Your task to perform on an android device: toggle improve location accuracy Image 0: 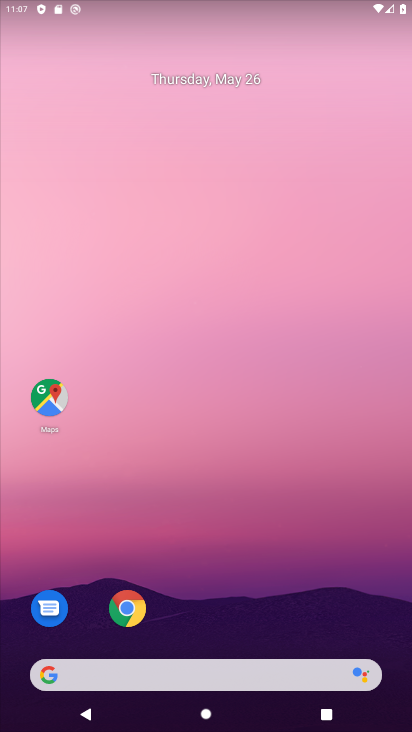
Step 0: drag from (277, 595) to (159, 74)
Your task to perform on an android device: toggle improve location accuracy Image 1: 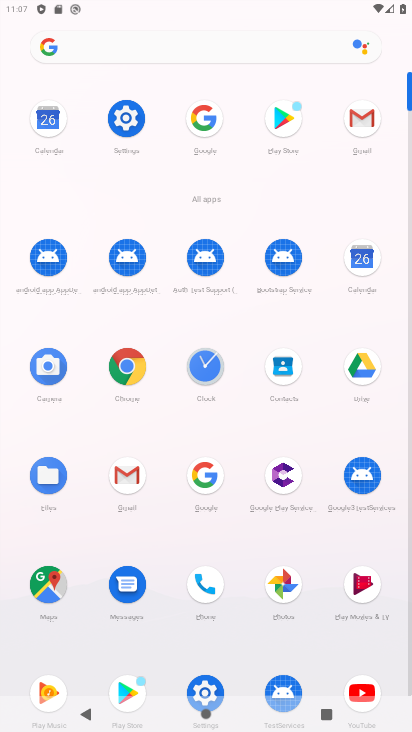
Step 1: click (131, 114)
Your task to perform on an android device: toggle improve location accuracy Image 2: 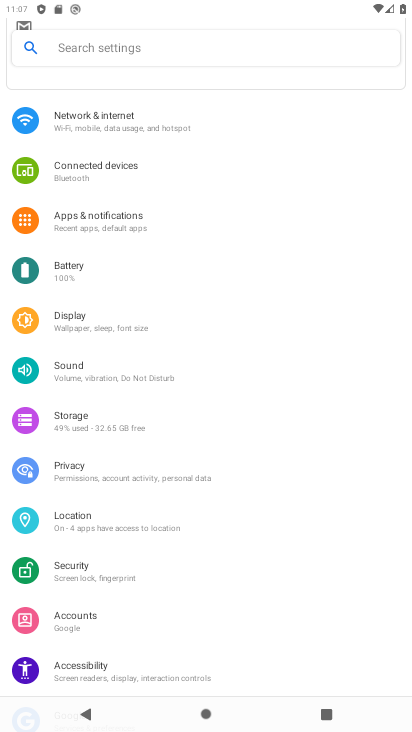
Step 2: click (78, 512)
Your task to perform on an android device: toggle improve location accuracy Image 3: 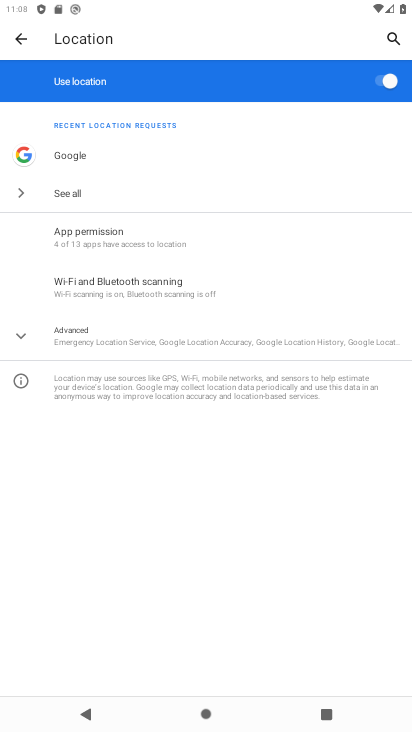
Step 3: click (38, 343)
Your task to perform on an android device: toggle improve location accuracy Image 4: 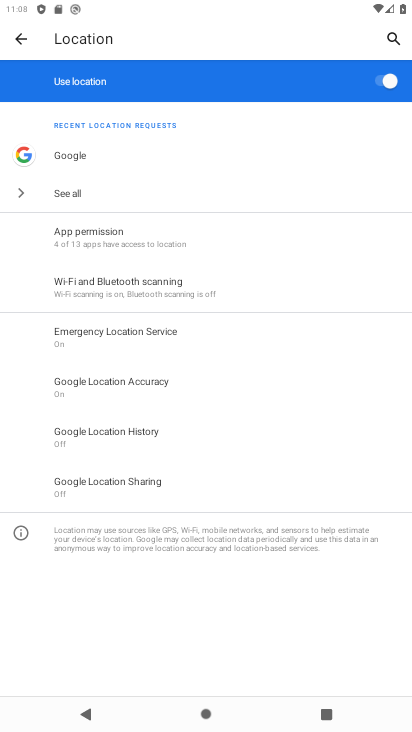
Step 4: click (113, 383)
Your task to perform on an android device: toggle improve location accuracy Image 5: 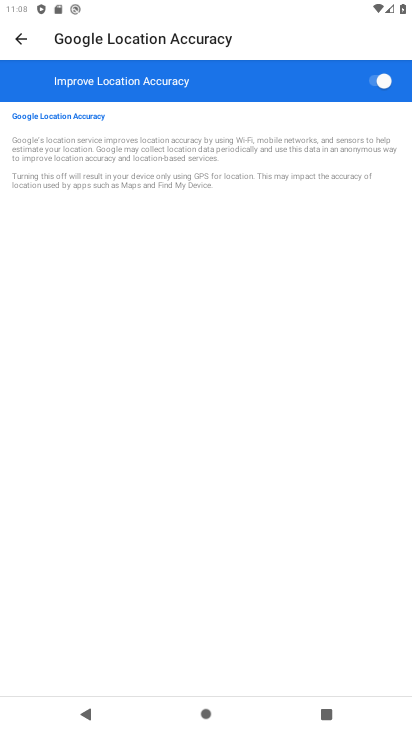
Step 5: click (377, 81)
Your task to perform on an android device: toggle improve location accuracy Image 6: 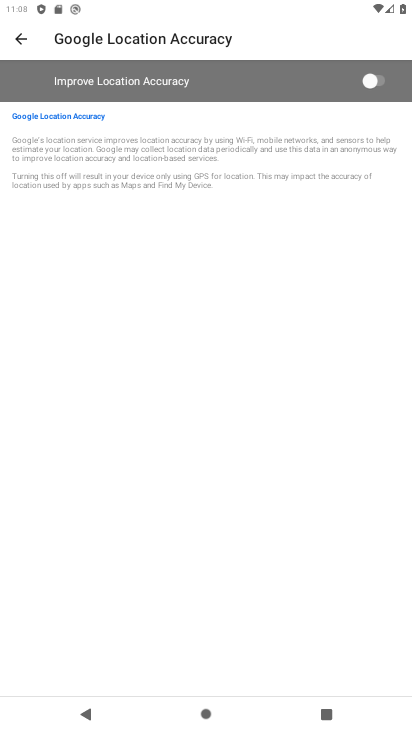
Step 6: task complete